Your task to perform on an android device: Open calendar and show me the fourth week of next month Image 0: 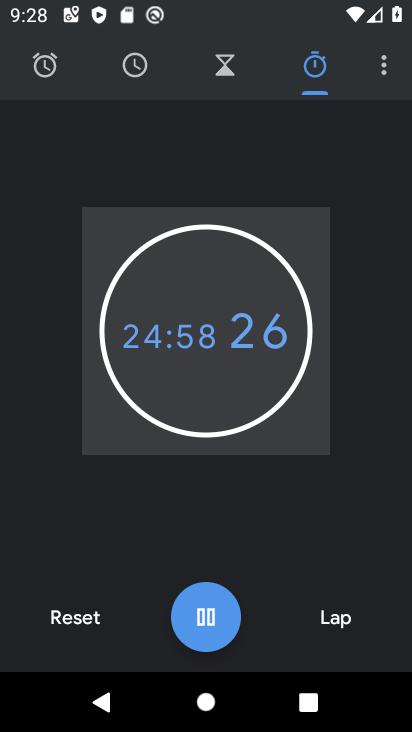
Step 0: press home button
Your task to perform on an android device: Open calendar and show me the fourth week of next month Image 1: 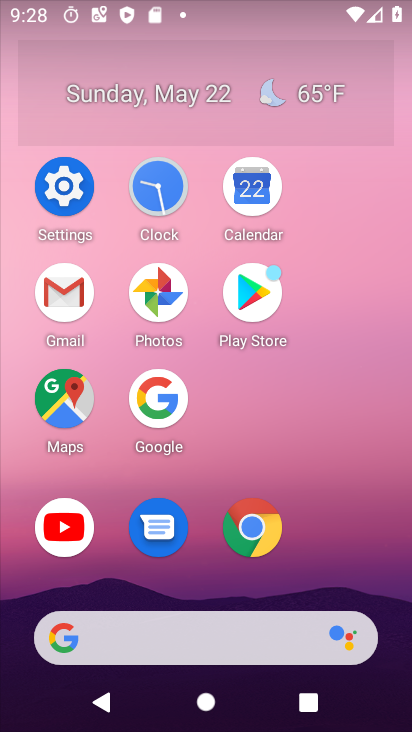
Step 1: click (251, 181)
Your task to perform on an android device: Open calendar and show me the fourth week of next month Image 2: 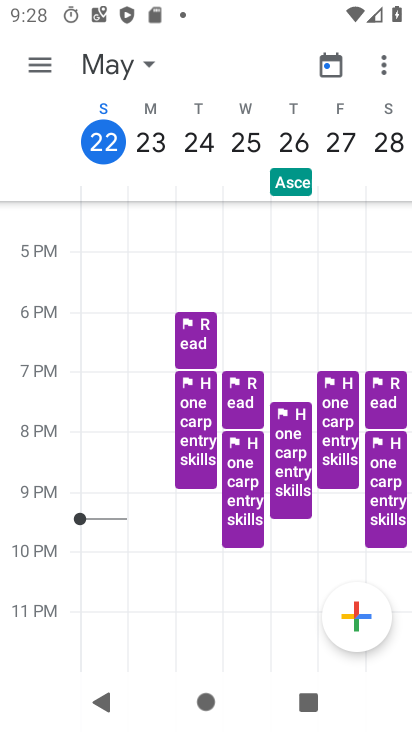
Step 2: click (149, 72)
Your task to perform on an android device: Open calendar and show me the fourth week of next month Image 3: 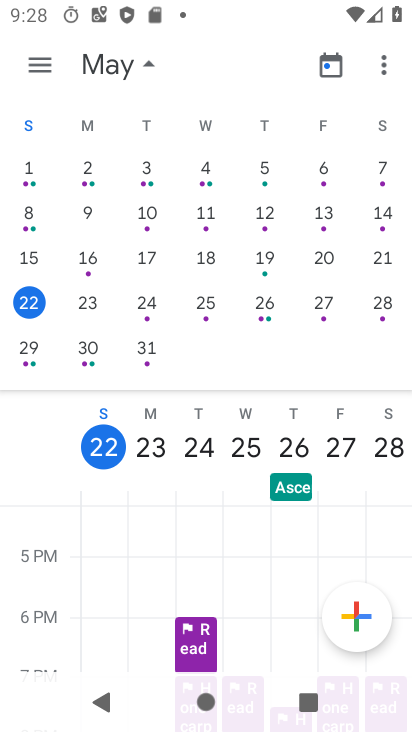
Step 3: drag from (393, 249) to (5, 219)
Your task to perform on an android device: Open calendar and show me the fourth week of next month Image 4: 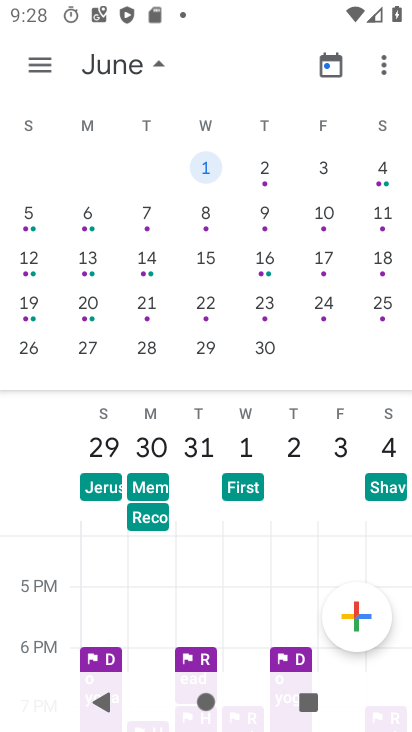
Step 4: click (42, 62)
Your task to perform on an android device: Open calendar and show me the fourth week of next month Image 5: 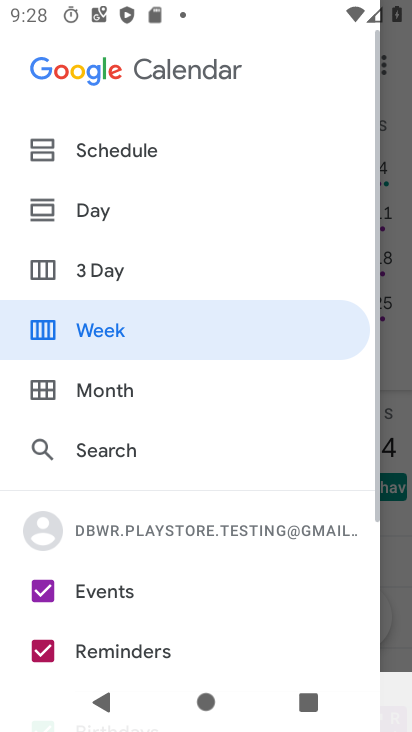
Step 5: click (169, 324)
Your task to perform on an android device: Open calendar and show me the fourth week of next month Image 6: 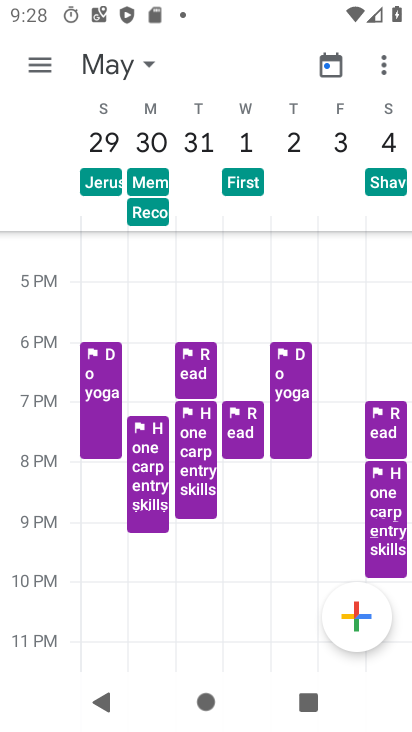
Step 6: task complete